Your task to perform on an android device: Open maps Image 0: 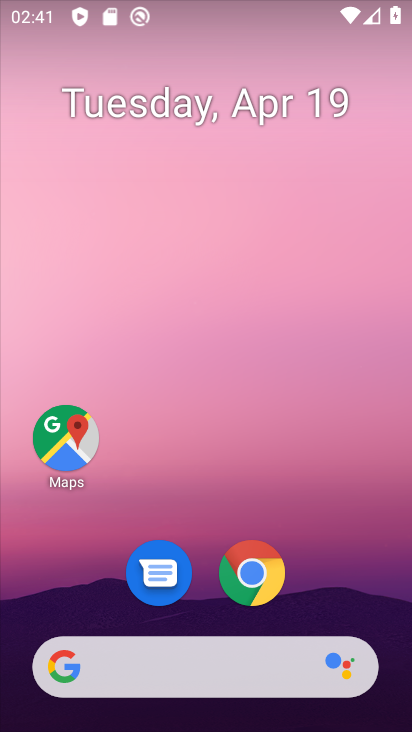
Step 0: drag from (305, 589) to (326, 151)
Your task to perform on an android device: Open maps Image 1: 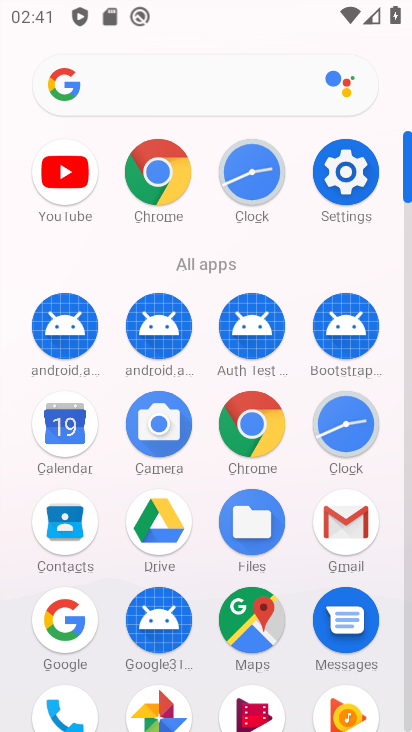
Step 1: click (234, 618)
Your task to perform on an android device: Open maps Image 2: 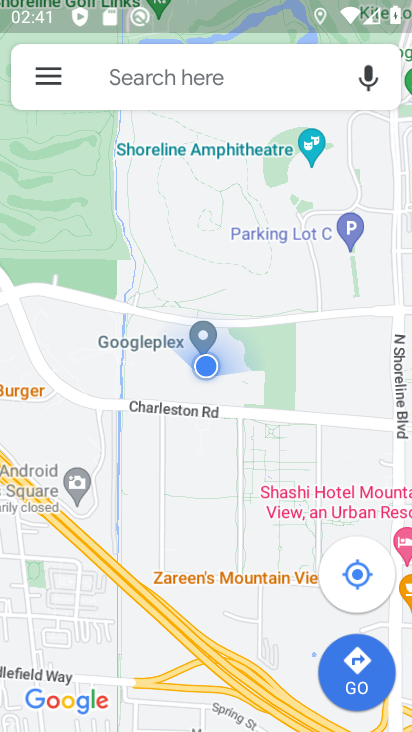
Step 2: task complete